Your task to perform on an android device: toggle notification dots Image 0: 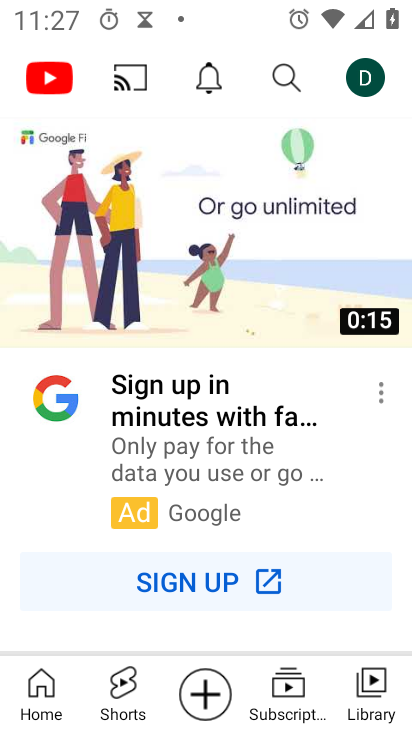
Step 0: press home button
Your task to perform on an android device: toggle notification dots Image 1: 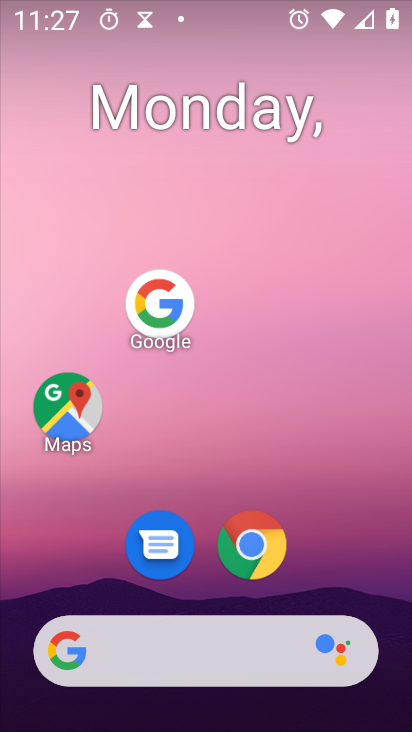
Step 1: drag from (170, 673) to (282, 96)
Your task to perform on an android device: toggle notification dots Image 2: 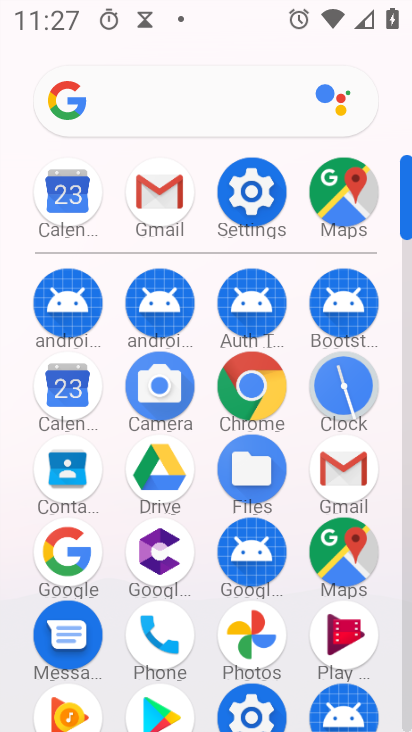
Step 2: click (264, 209)
Your task to perform on an android device: toggle notification dots Image 3: 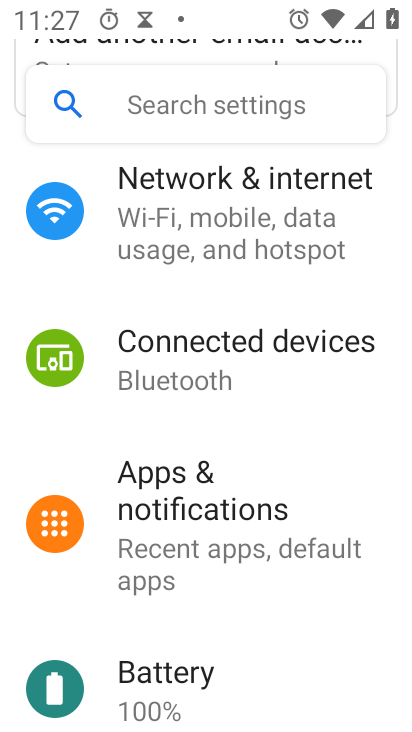
Step 3: drag from (261, 680) to (316, 179)
Your task to perform on an android device: toggle notification dots Image 4: 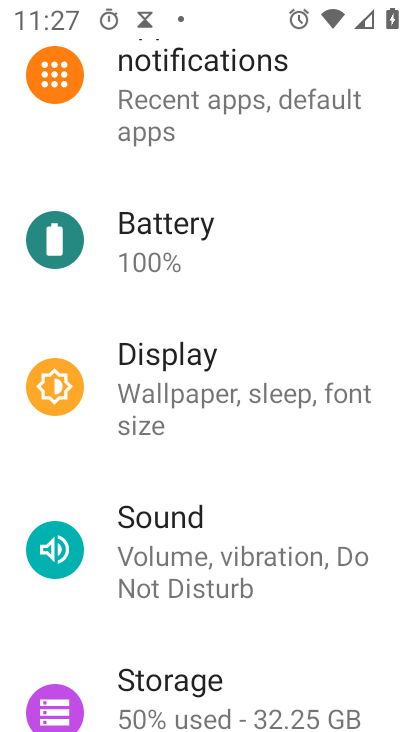
Step 4: drag from (190, 655) to (318, 263)
Your task to perform on an android device: toggle notification dots Image 5: 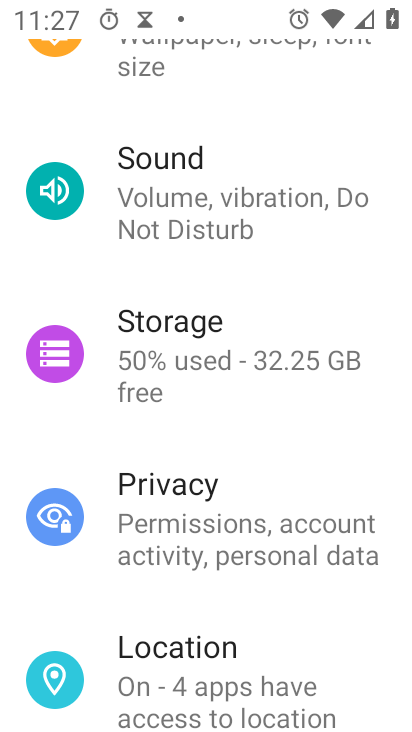
Step 5: drag from (307, 82) to (294, 555)
Your task to perform on an android device: toggle notification dots Image 6: 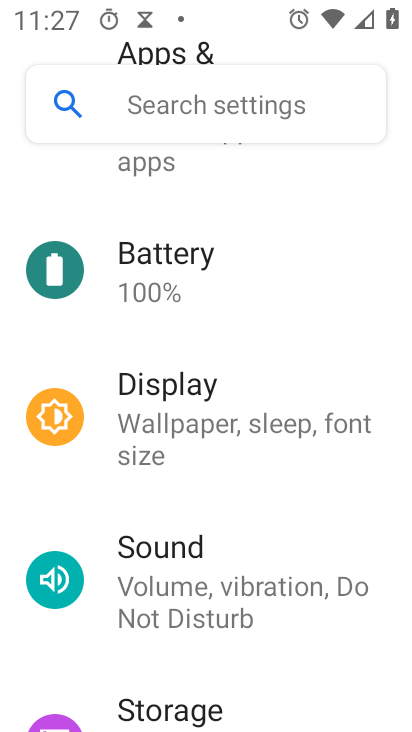
Step 6: drag from (316, 242) to (270, 564)
Your task to perform on an android device: toggle notification dots Image 7: 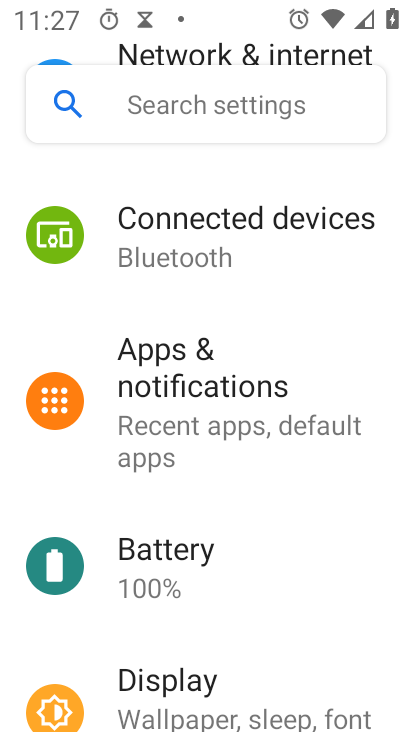
Step 7: click (237, 409)
Your task to perform on an android device: toggle notification dots Image 8: 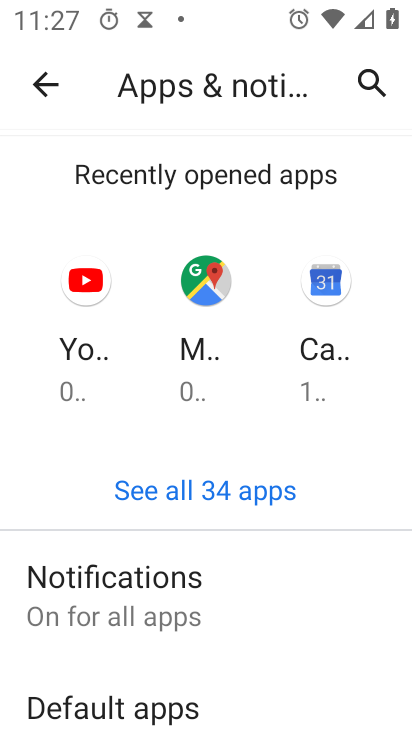
Step 8: click (122, 607)
Your task to perform on an android device: toggle notification dots Image 9: 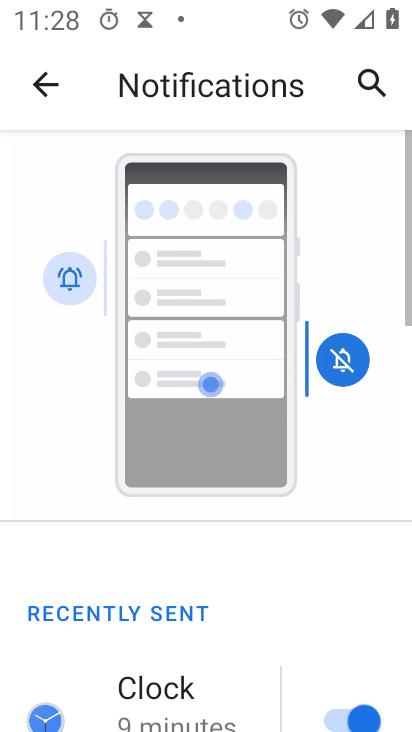
Step 9: drag from (213, 671) to (308, 194)
Your task to perform on an android device: toggle notification dots Image 10: 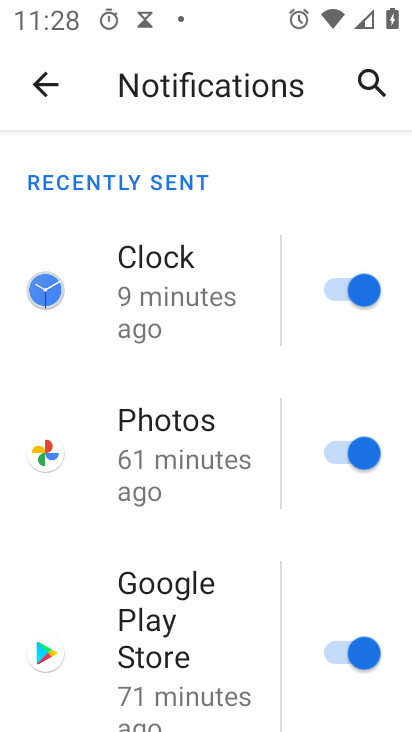
Step 10: drag from (219, 693) to (335, 38)
Your task to perform on an android device: toggle notification dots Image 11: 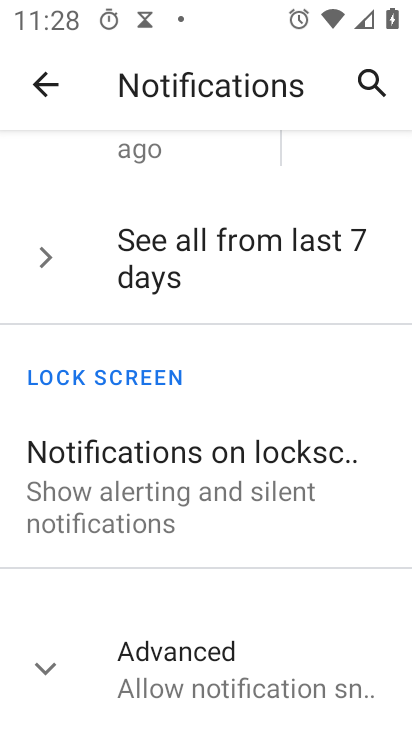
Step 11: click (169, 649)
Your task to perform on an android device: toggle notification dots Image 12: 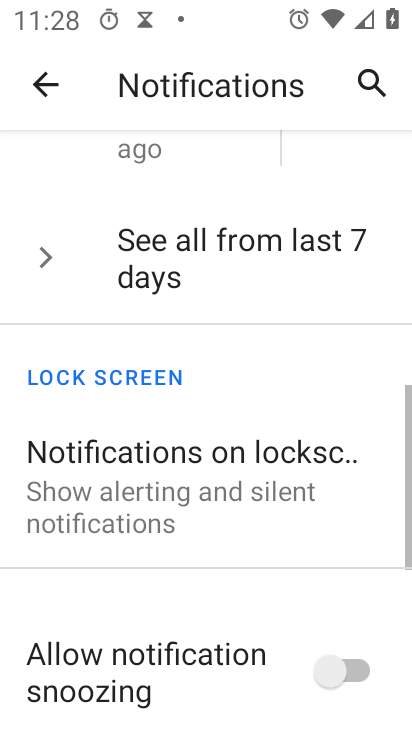
Step 12: drag from (202, 685) to (342, 16)
Your task to perform on an android device: toggle notification dots Image 13: 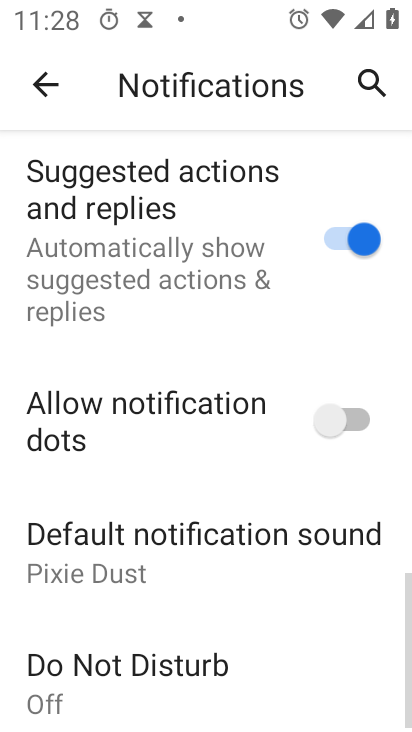
Step 13: drag from (233, 624) to (295, 239)
Your task to perform on an android device: toggle notification dots Image 14: 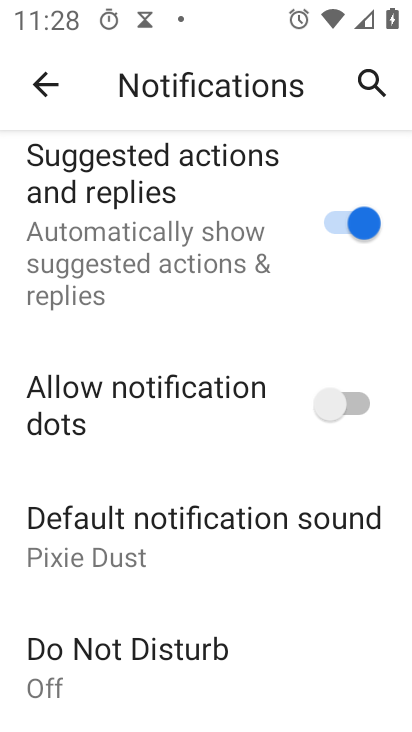
Step 14: click (347, 399)
Your task to perform on an android device: toggle notification dots Image 15: 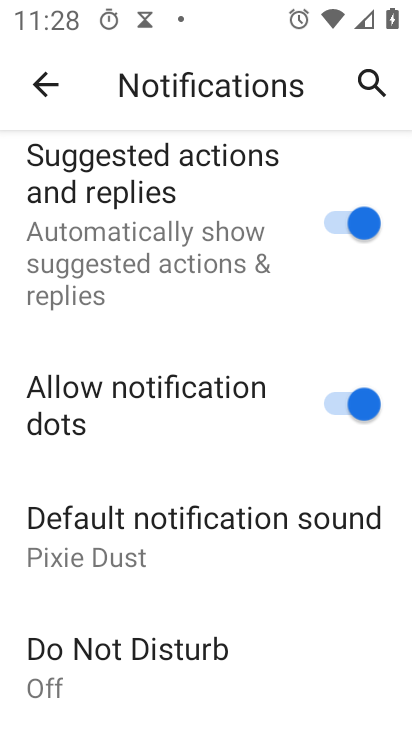
Step 15: task complete